Your task to perform on an android device: Open my contact list Image 0: 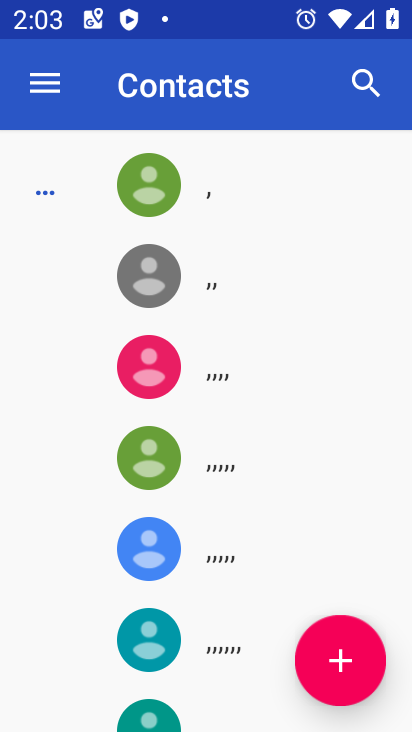
Step 0: drag from (237, 669) to (219, 218)
Your task to perform on an android device: Open my contact list Image 1: 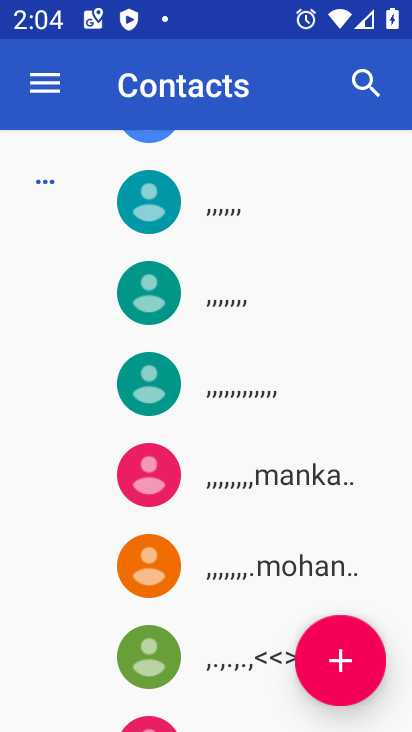
Step 1: task complete